Your task to perform on an android device: Go to Amazon Image 0: 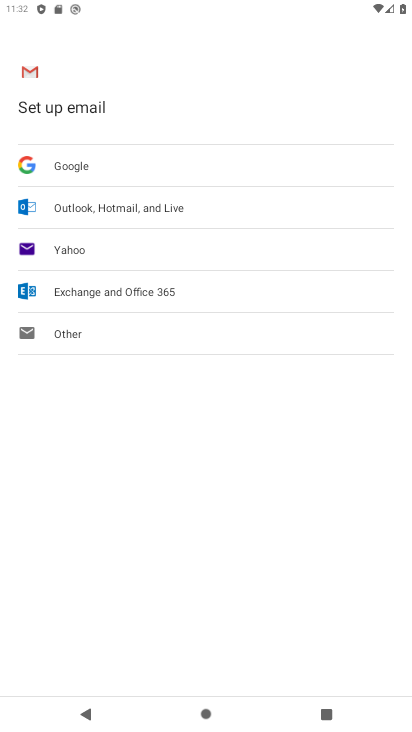
Step 0: press home button
Your task to perform on an android device: Go to Amazon Image 1: 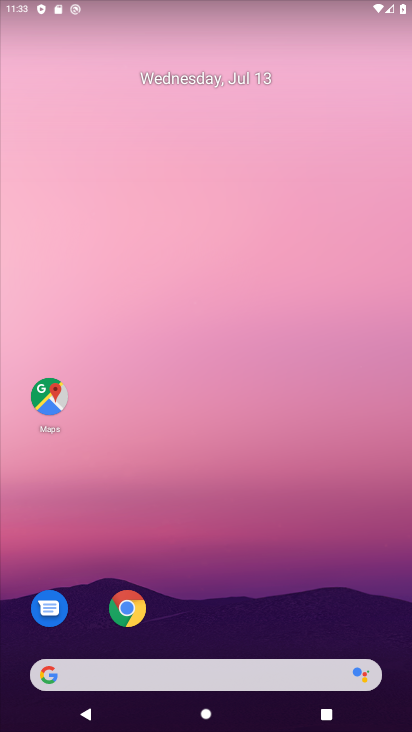
Step 1: click (125, 604)
Your task to perform on an android device: Go to Amazon Image 2: 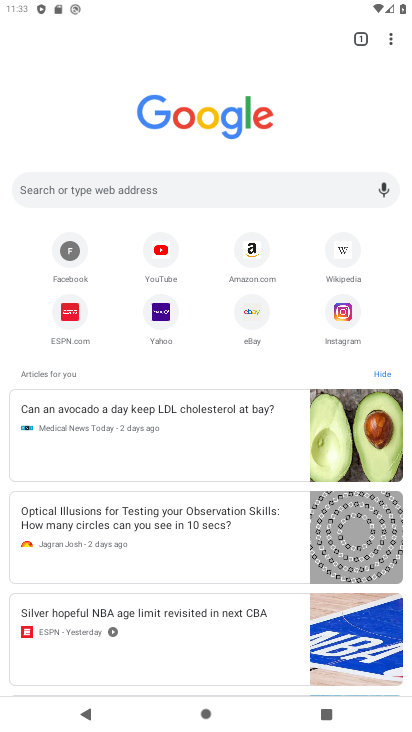
Step 2: click (246, 243)
Your task to perform on an android device: Go to Amazon Image 3: 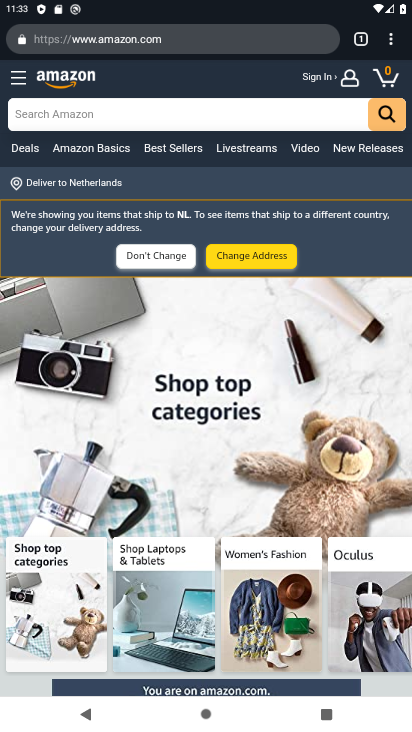
Step 3: task complete